Your task to perform on an android device: toggle translation in the chrome app Image 0: 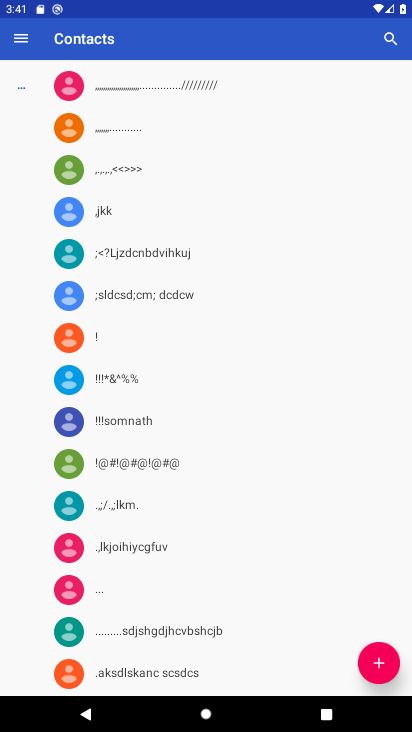
Step 0: press back button
Your task to perform on an android device: toggle translation in the chrome app Image 1: 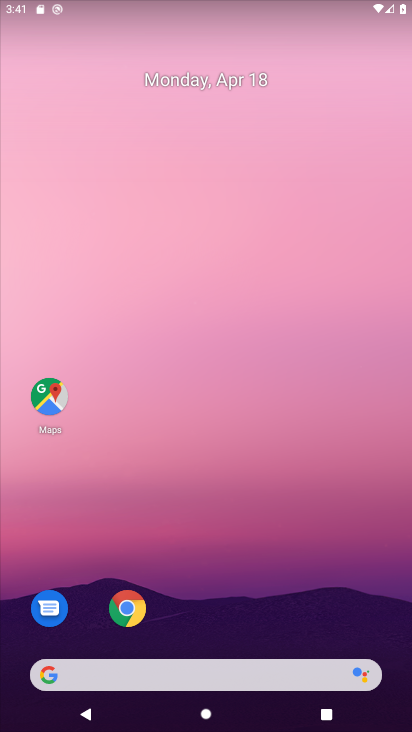
Step 1: drag from (299, 333) to (283, 207)
Your task to perform on an android device: toggle translation in the chrome app Image 2: 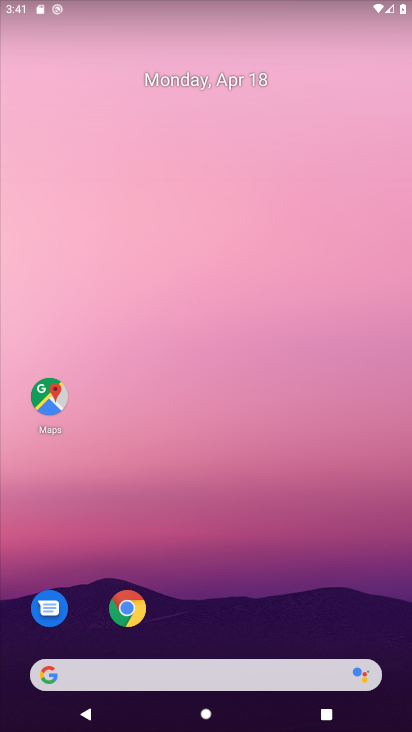
Step 2: drag from (331, 178) to (311, 32)
Your task to perform on an android device: toggle translation in the chrome app Image 3: 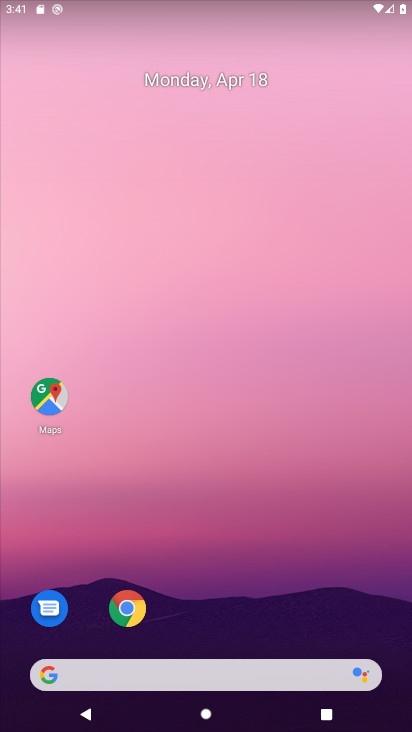
Step 3: drag from (366, 598) to (295, 16)
Your task to perform on an android device: toggle translation in the chrome app Image 4: 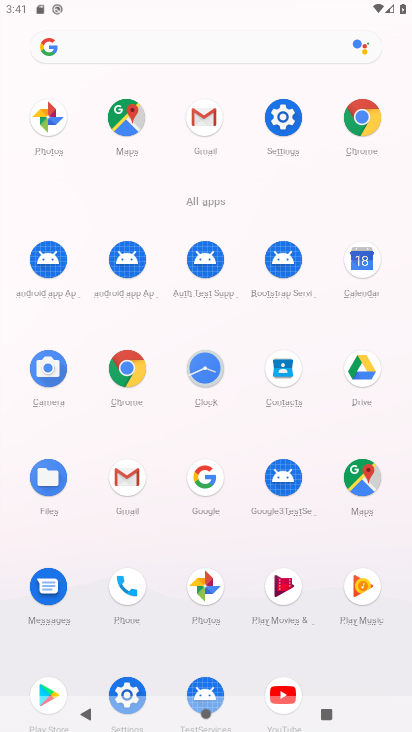
Step 4: click (371, 104)
Your task to perform on an android device: toggle translation in the chrome app Image 5: 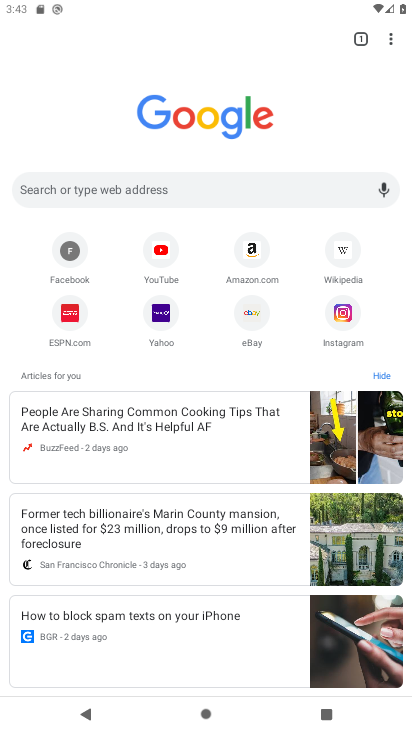
Step 5: click (393, 34)
Your task to perform on an android device: toggle translation in the chrome app Image 6: 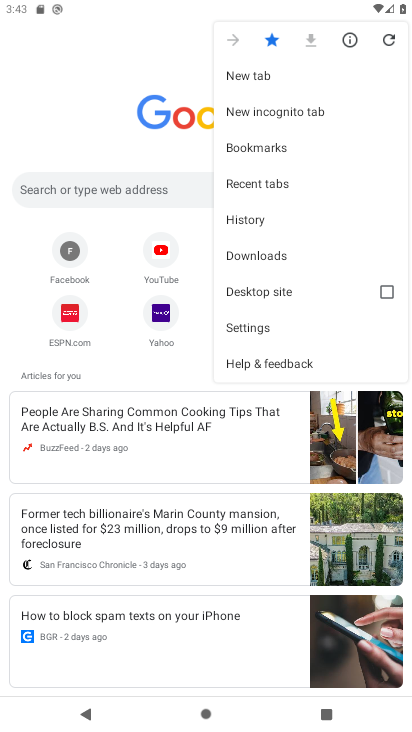
Step 6: click (260, 324)
Your task to perform on an android device: toggle translation in the chrome app Image 7: 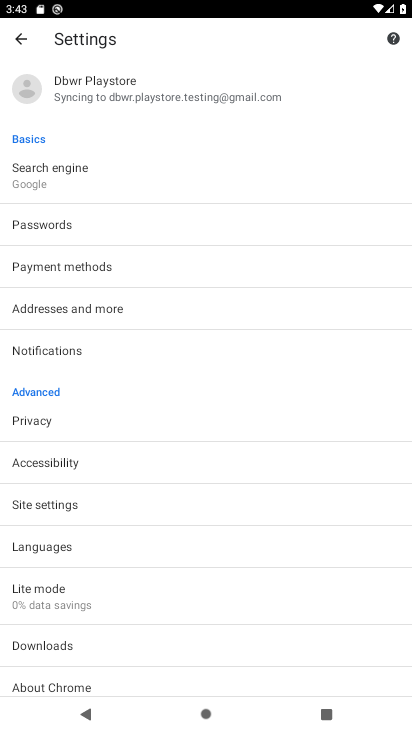
Step 7: click (56, 543)
Your task to perform on an android device: toggle translation in the chrome app Image 8: 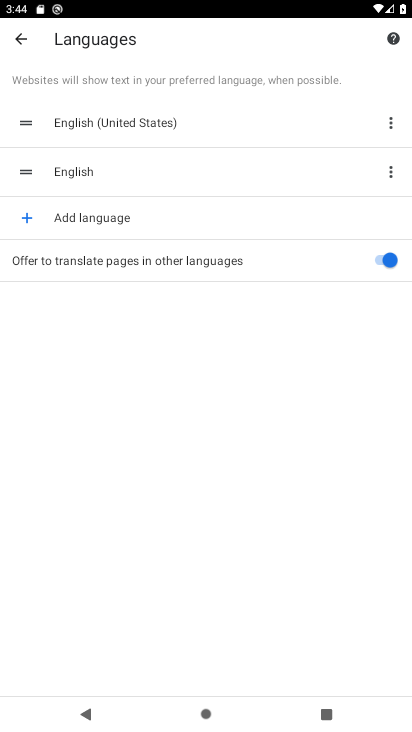
Step 8: click (285, 260)
Your task to perform on an android device: toggle translation in the chrome app Image 9: 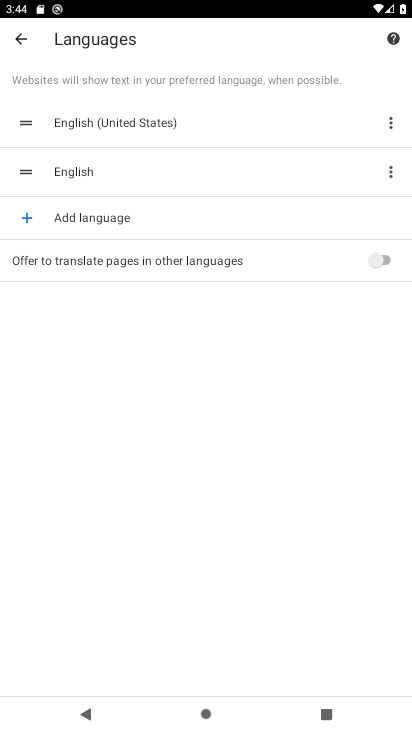
Step 9: task complete